Your task to perform on an android device: Open Yahoo.com Image 0: 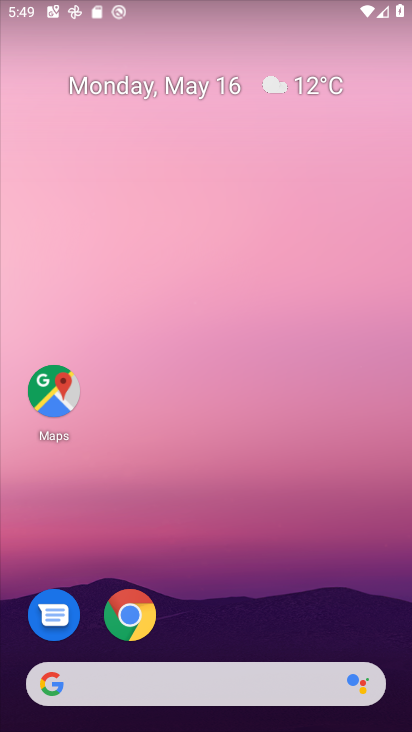
Step 0: click (133, 620)
Your task to perform on an android device: Open Yahoo.com Image 1: 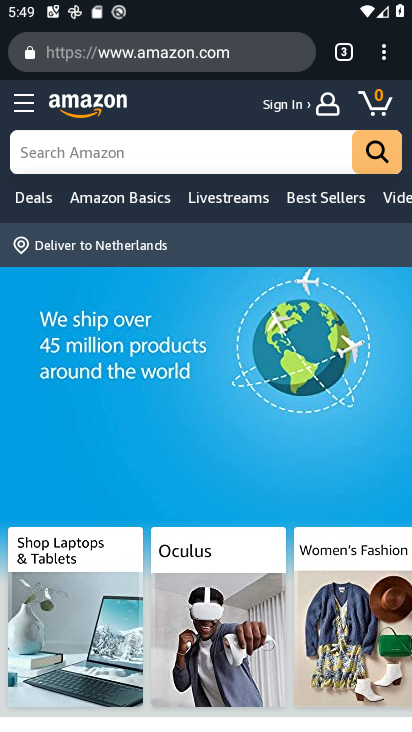
Step 1: click (212, 66)
Your task to perform on an android device: Open Yahoo.com Image 2: 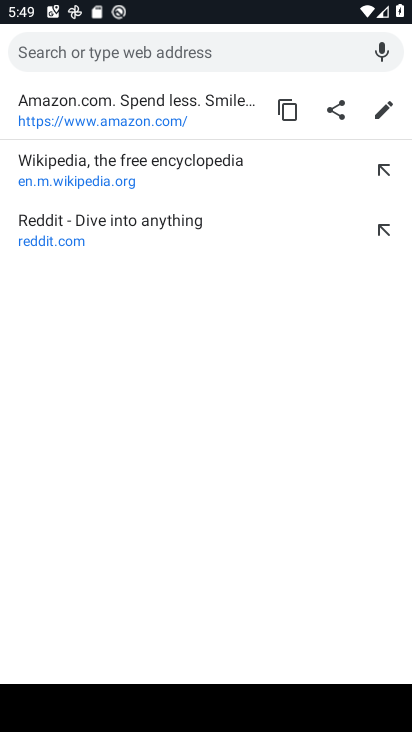
Step 2: type "www.yahoo.com"
Your task to perform on an android device: Open Yahoo.com Image 3: 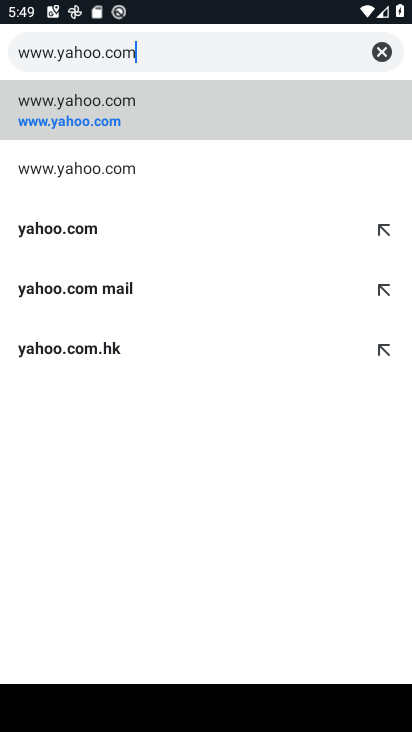
Step 3: click (82, 113)
Your task to perform on an android device: Open Yahoo.com Image 4: 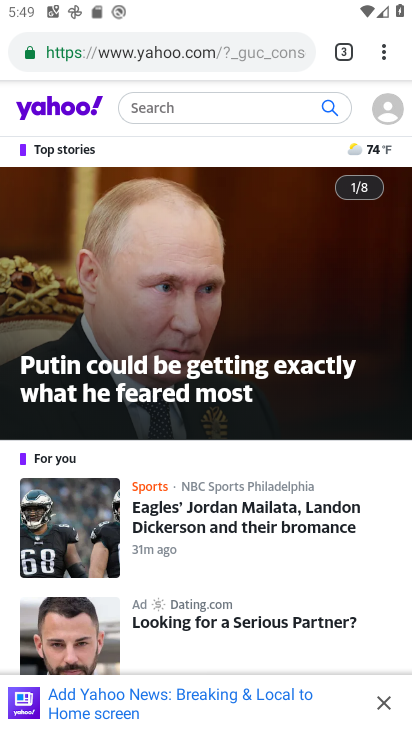
Step 4: task complete